Your task to perform on an android device: Open Google Maps Image 0: 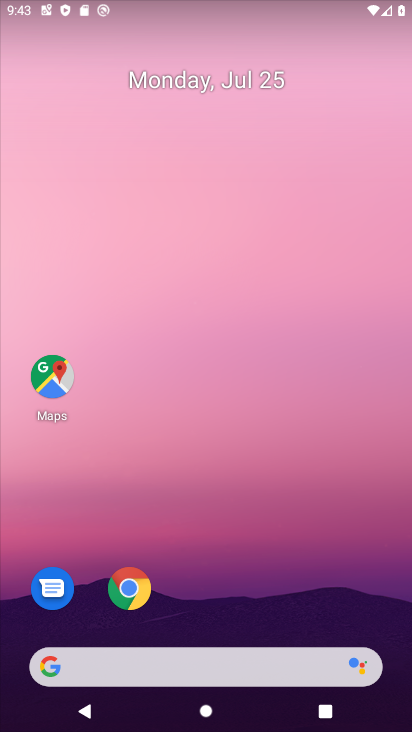
Step 0: drag from (288, 618) to (287, 129)
Your task to perform on an android device: Open Google Maps Image 1: 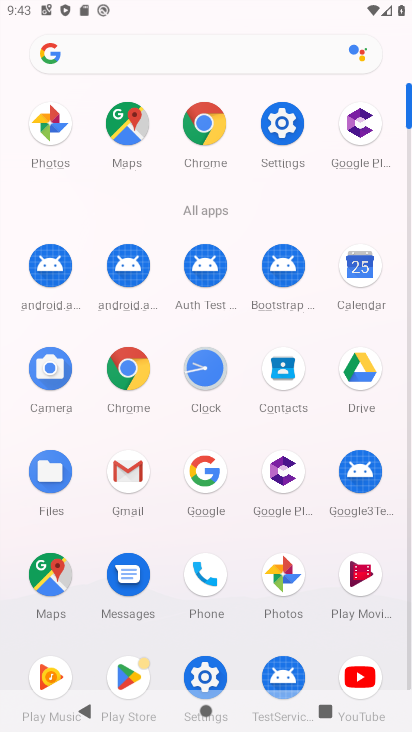
Step 1: click (30, 569)
Your task to perform on an android device: Open Google Maps Image 2: 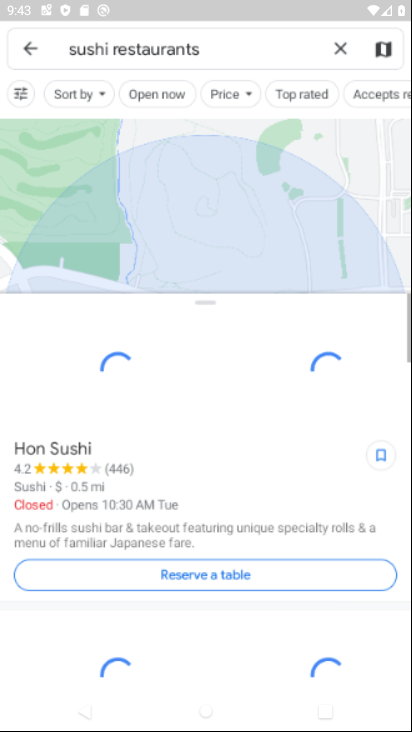
Step 2: task complete